Your task to perform on an android device: Check the news Image 0: 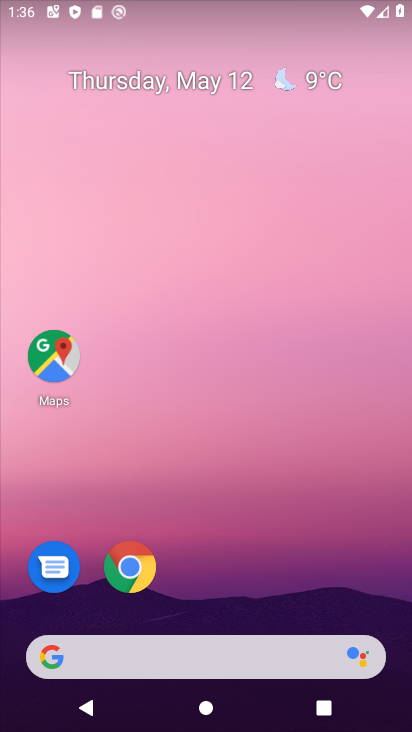
Step 0: drag from (9, 238) to (398, 290)
Your task to perform on an android device: Check the news Image 1: 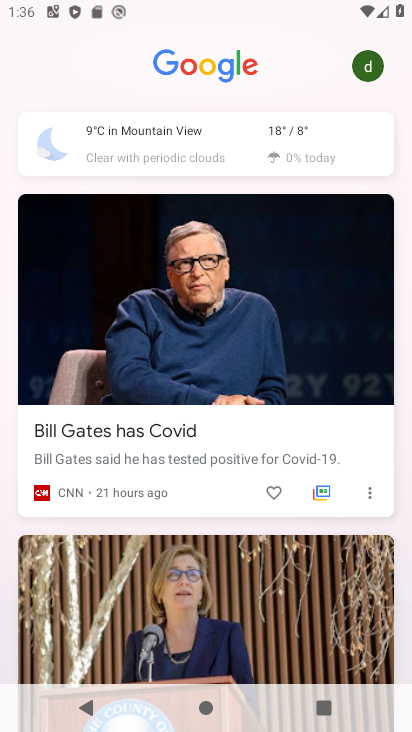
Step 1: task complete